Your task to perform on an android device: Open Youtube and go to the subscriptions tab Image 0: 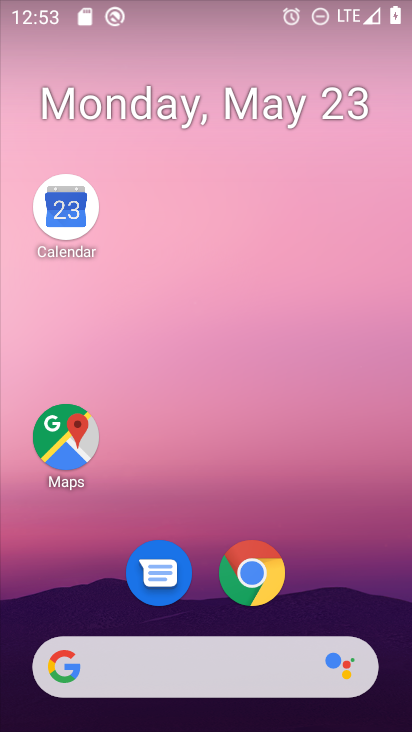
Step 0: drag from (315, 509) to (317, 61)
Your task to perform on an android device: Open Youtube and go to the subscriptions tab Image 1: 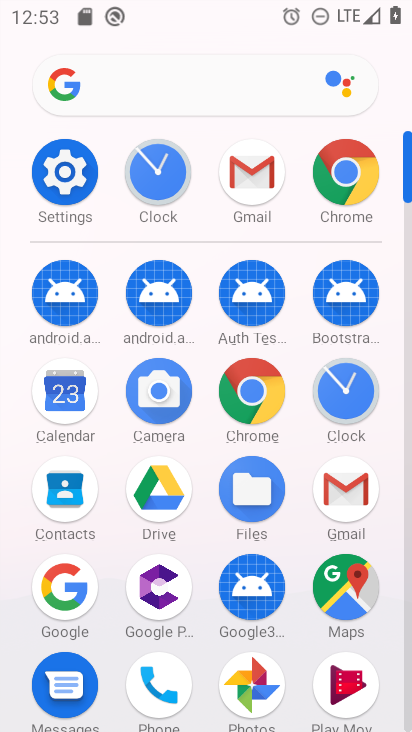
Step 1: drag from (284, 645) to (269, 322)
Your task to perform on an android device: Open Youtube and go to the subscriptions tab Image 2: 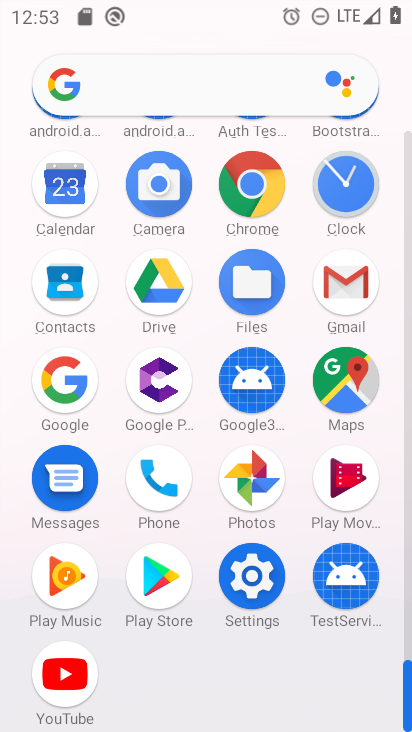
Step 2: click (55, 677)
Your task to perform on an android device: Open Youtube and go to the subscriptions tab Image 3: 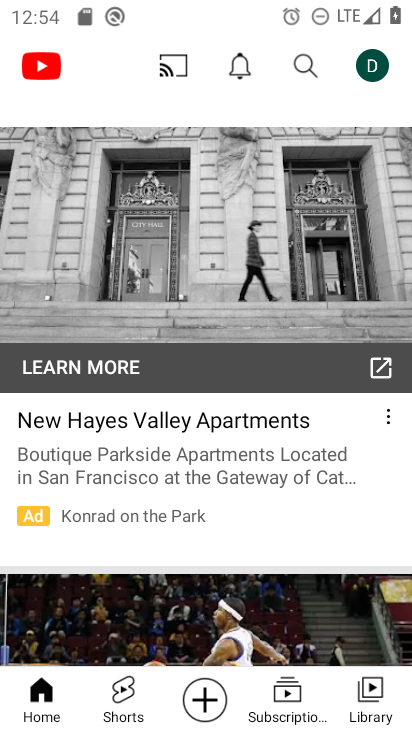
Step 3: click (291, 697)
Your task to perform on an android device: Open Youtube and go to the subscriptions tab Image 4: 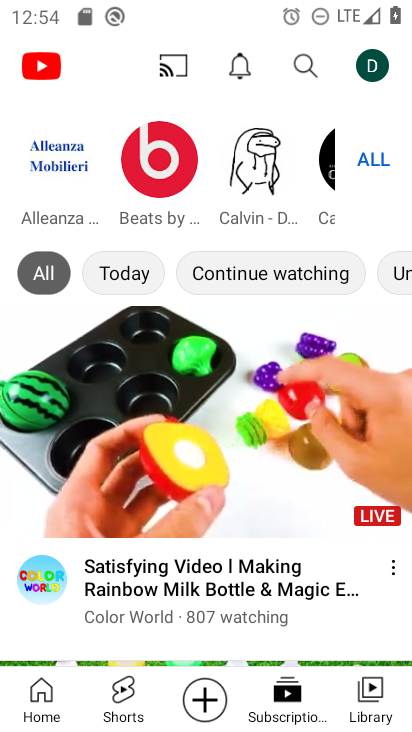
Step 4: task complete